Your task to perform on an android device: Is it going to rain this weekend? Image 0: 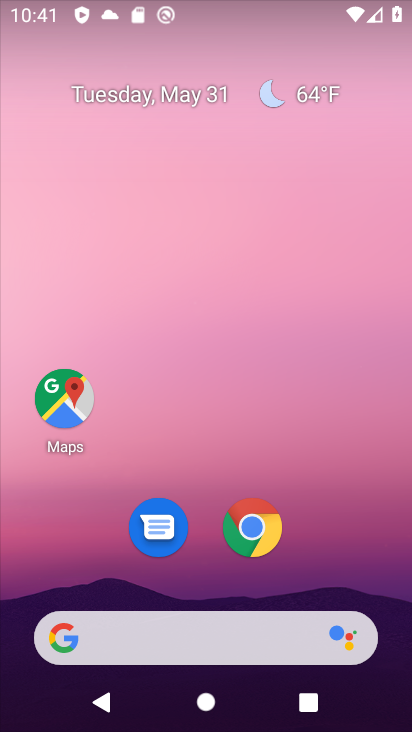
Step 0: click (274, 627)
Your task to perform on an android device: Is it going to rain this weekend? Image 1: 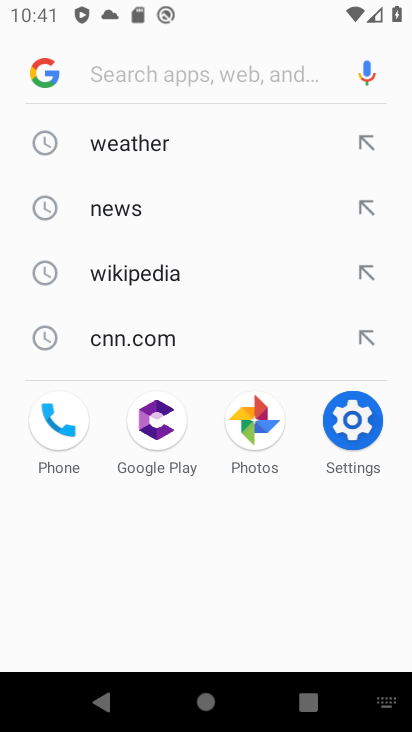
Step 1: type "Is it going to rain this weekend?"
Your task to perform on an android device: Is it going to rain this weekend? Image 2: 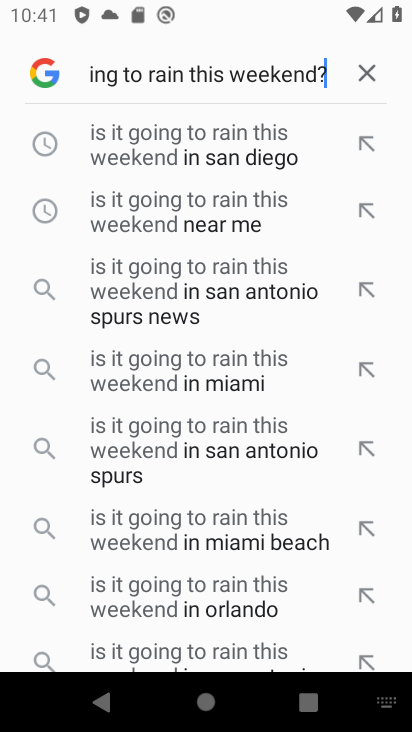
Step 2: click (269, 214)
Your task to perform on an android device: Is it going to rain this weekend? Image 3: 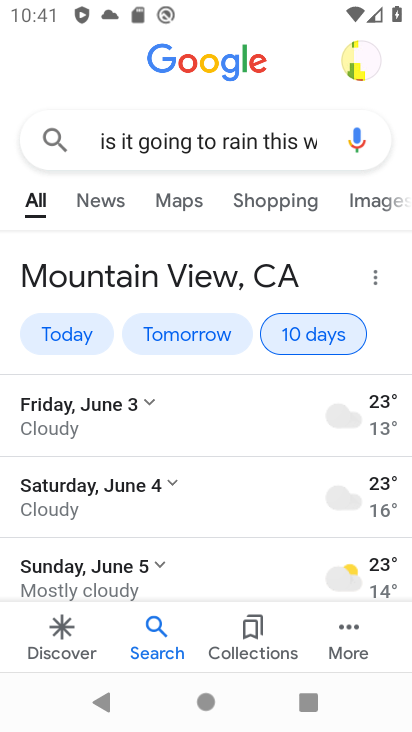
Step 3: task complete